Your task to perform on an android device: choose inbox layout in the gmail app Image 0: 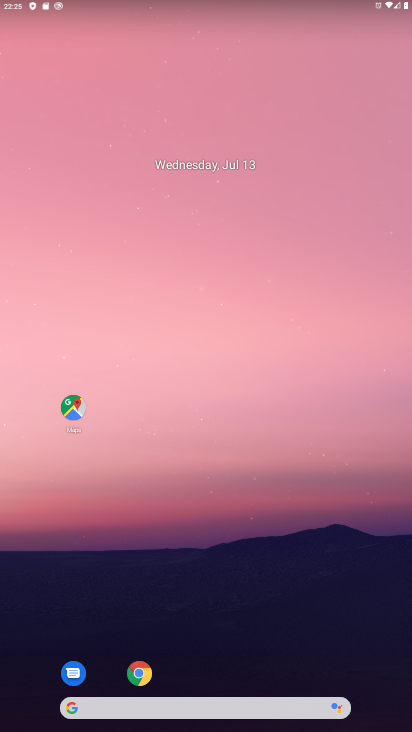
Step 0: drag from (222, 688) to (263, 159)
Your task to perform on an android device: choose inbox layout in the gmail app Image 1: 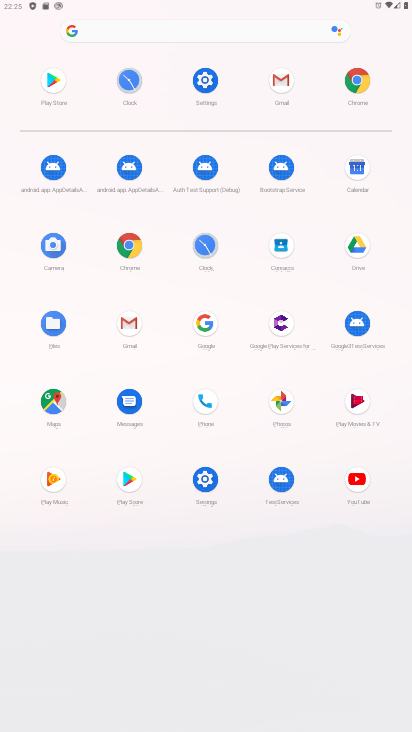
Step 1: click (277, 80)
Your task to perform on an android device: choose inbox layout in the gmail app Image 2: 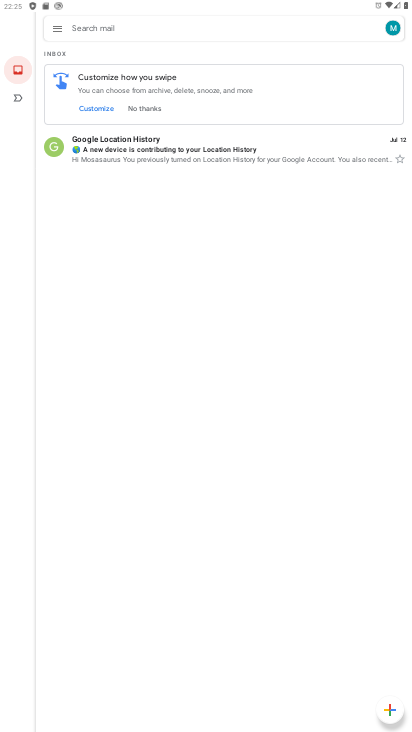
Step 2: click (59, 35)
Your task to perform on an android device: choose inbox layout in the gmail app Image 3: 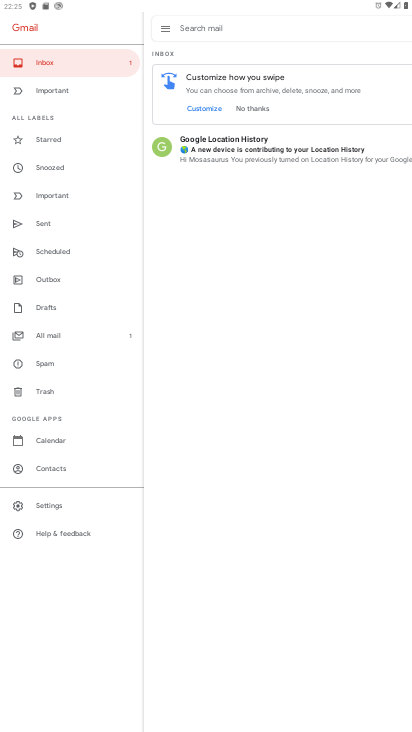
Step 3: click (51, 499)
Your task to perform on an android device: choose inbox layout in the gmail app Image 4: 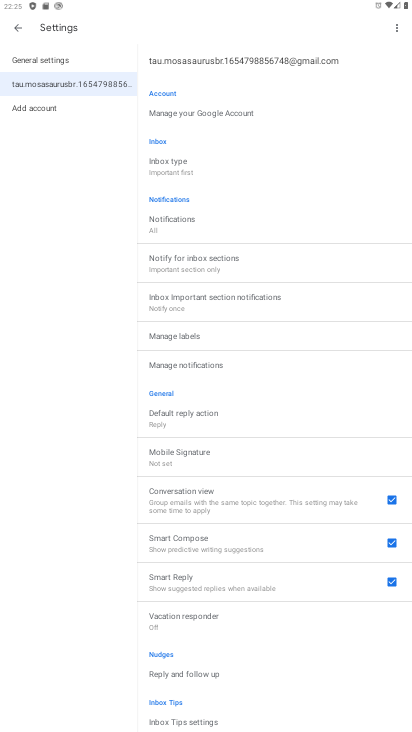
Step 4: click (157, 156)
Your task to perform on an android device: choose inbox layout in the gmail app Image 5: 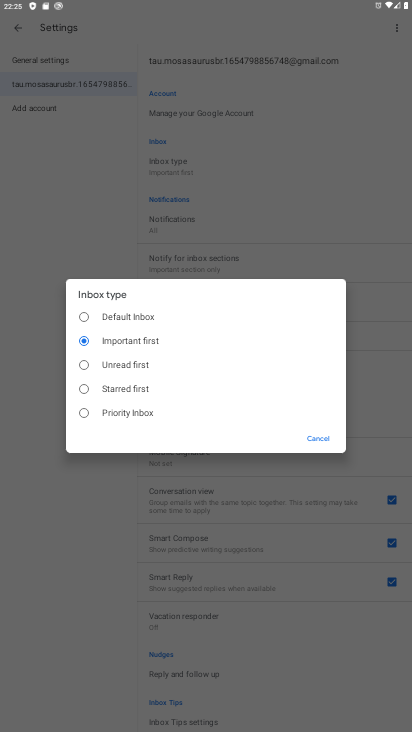
Step 5: click (117, 317)
Your task to perform on an android device: choose inbox layout in the gmail app Image 6: 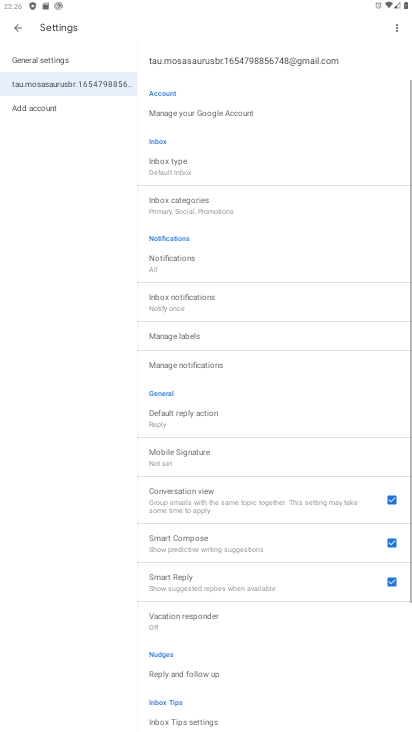
Step 6: task complete